Your task to perform on an android device: check android version Image 0: 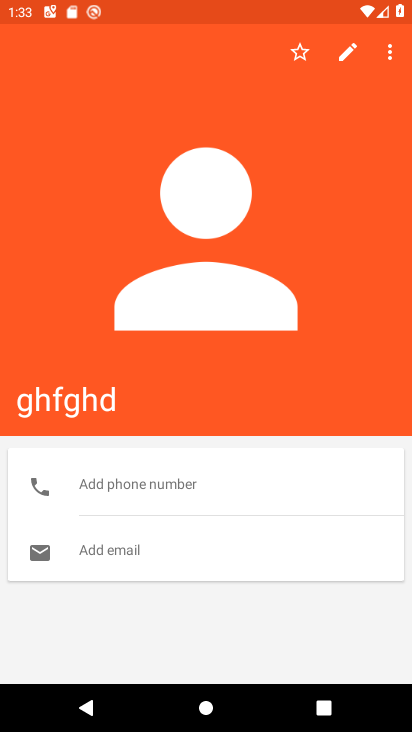
Step 0: press home button
Your task to perform on an android device: check android version Image 1: 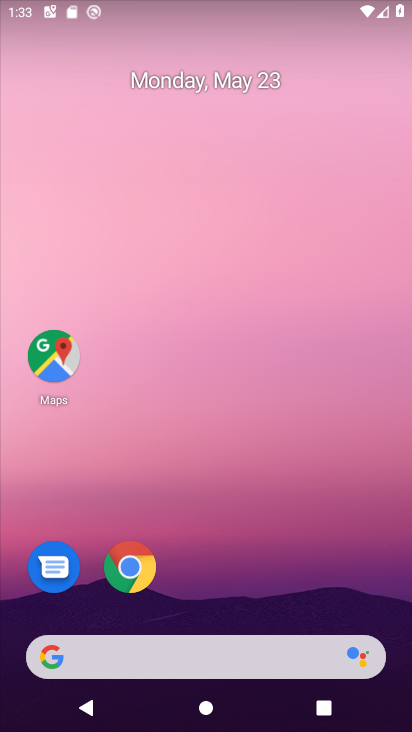
Step 1: drag from (234, 584) to (211, 146)
Your task to perform on an android device: check android version Image 2: 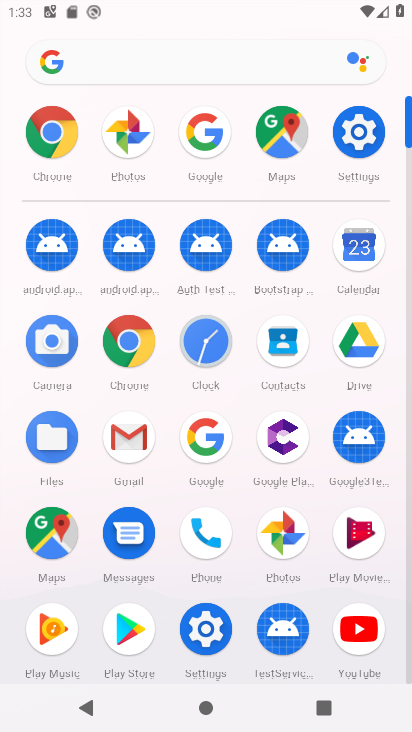
Step 2: click (359, 145)
Your task to perform on an android device: check android version Image 3: 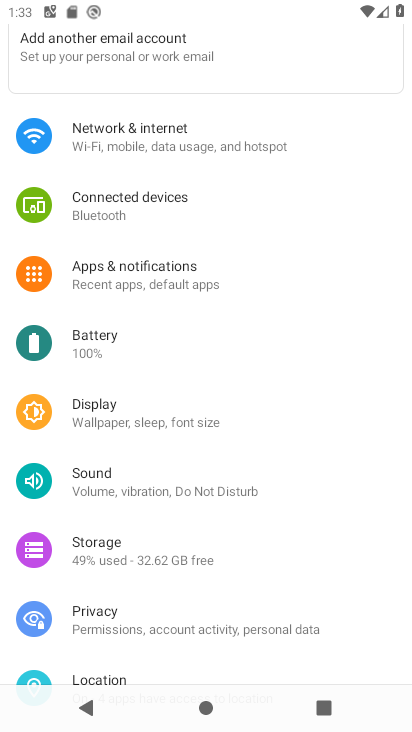
Step 3: drag from (157, 571) to (148, 183)
Your task to perform on an android device: check android version Image 4: 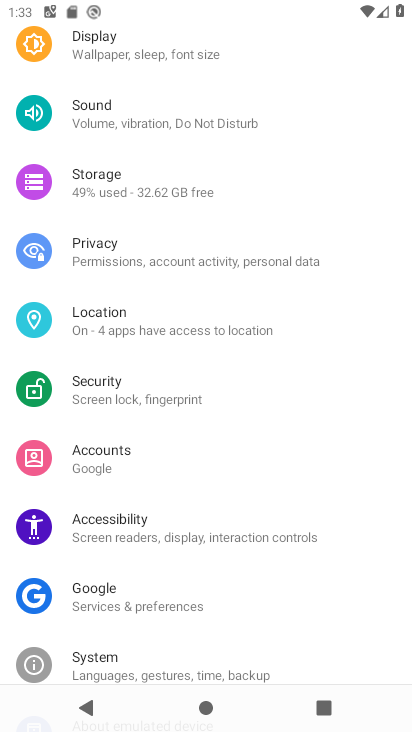
Step 4: drag from (155, 543) to (173, 211)
Your task to perform on an android device: check android version Image 5: 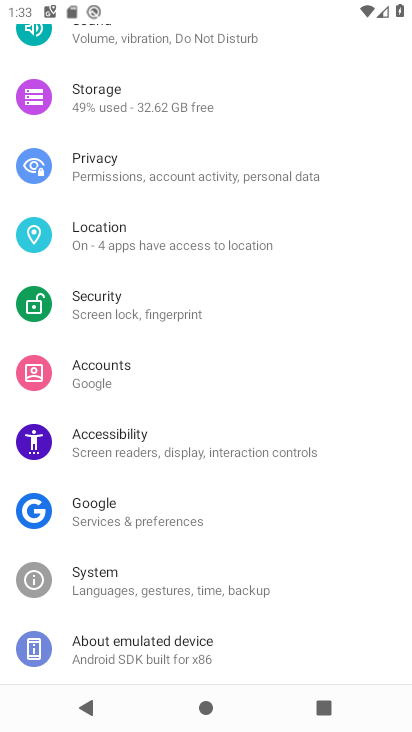
Step 5: click (126, 655)
Your task to perform on an android device: check android version Image 6: 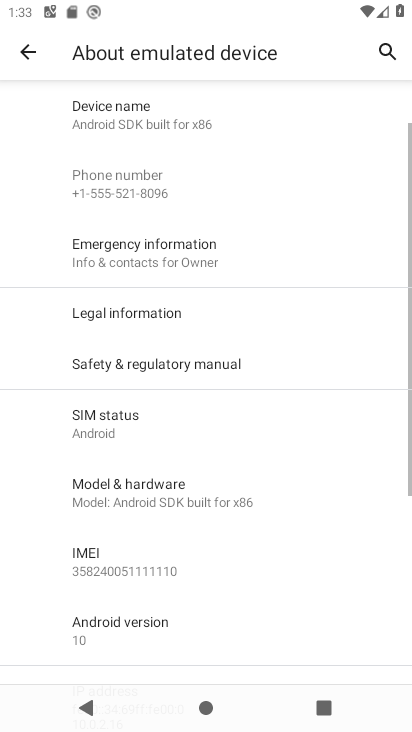
Step 6: click (115, 627)
Your task to perform on an android device: check android version Image 7: 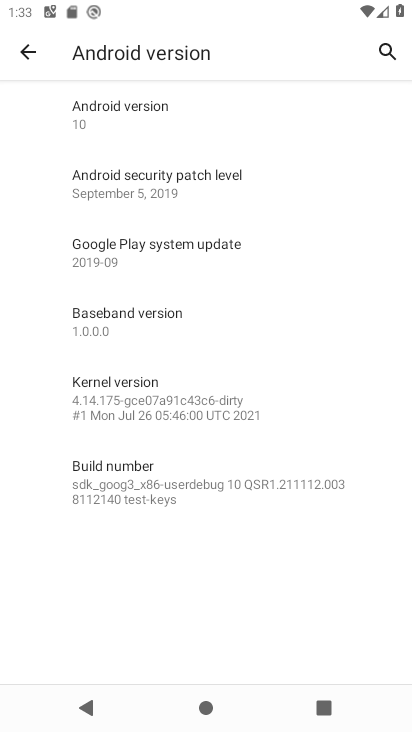
Step 7: task complete